Your task to perform on an android device: turn off data saver in the chrome app Image 0: 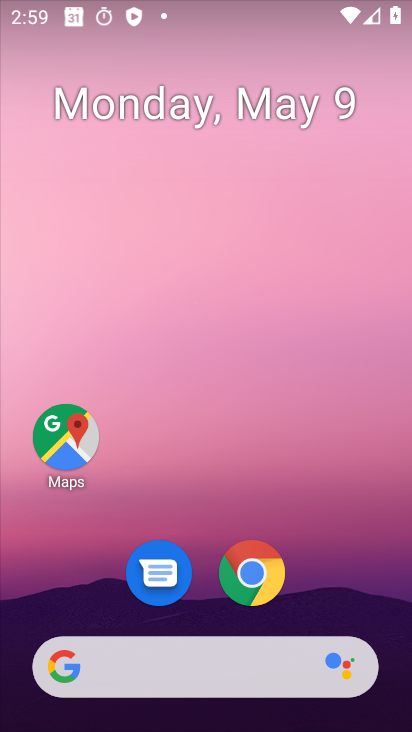
Step 0: drag from (292, 660) to (165, 197)
Your task to perform on an android device: turn off data saver in the chrome app Image 1: 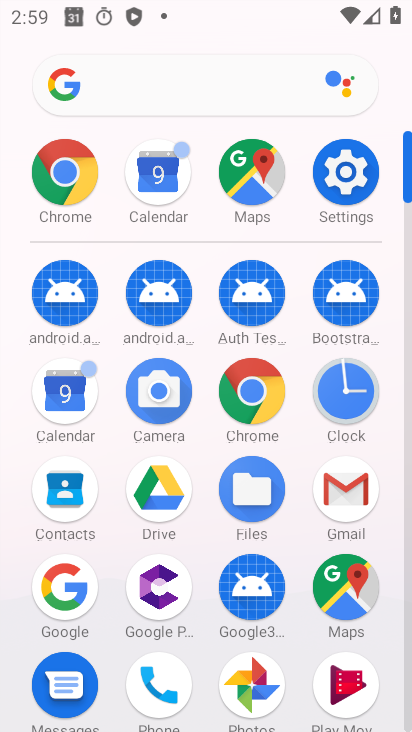
Step 1: click (70, 195)
Your task to perform on an android device: turn off data saver in the chrome app Image 2: 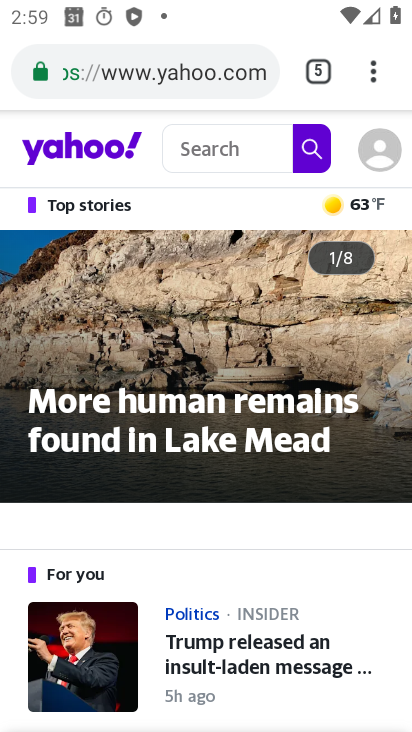
Step 2: drag from (363, 79) to (115, 564)
Your task to perform on an android device: turn off data saver in the chrome app Image 3: 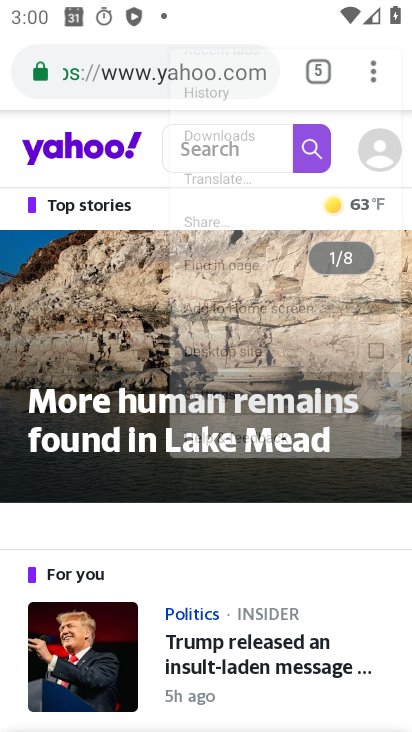
Step 3: click (117, 560)
Your task to perform on an android device: turn off data saver in the chrome app Image 4: 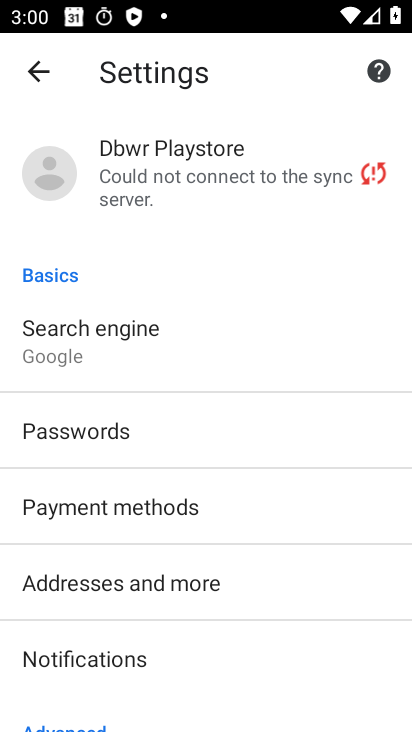
Step 4: drag from (138, 571) to (84, 263)
Your task to perform on an android device: turn off data saver in the chrome app Image 5: 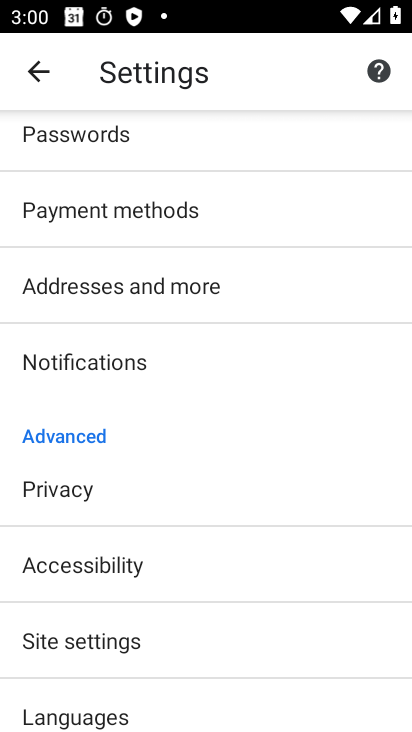
Step 5: click (72, 635)
Your task to perform on an android device: turn off data saver in the chrome app Image 6: 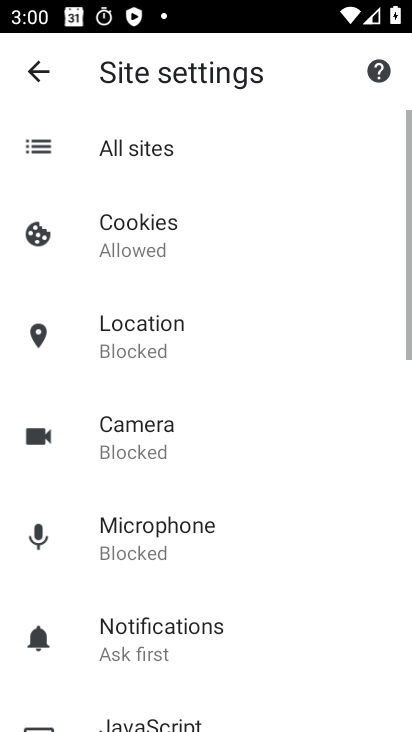
Step 6: click (31, 77)
Your task to perform on an android device: turn off data saver in the chrome app Image 7: 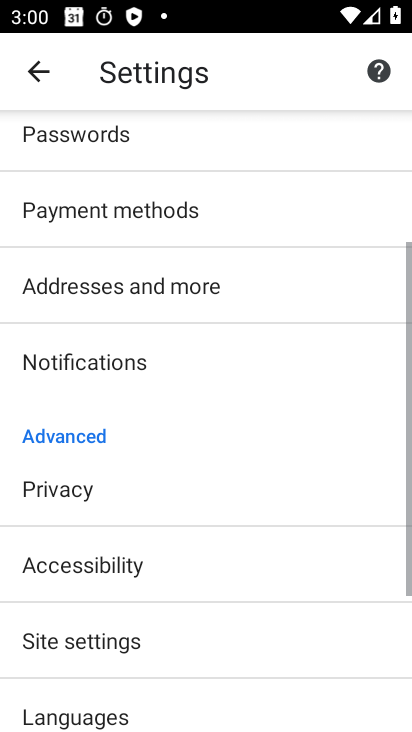
Step 7: drag from (63, 647) to (76, 280)
Your task to perform on an android device: turn off data saver in the chrome app Image 8: 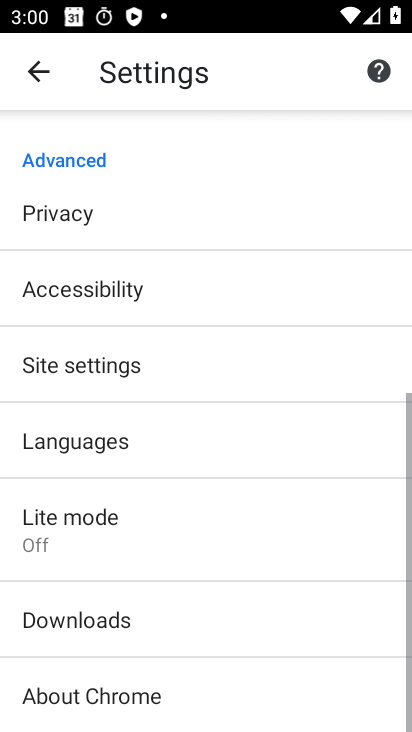
Step 8: click (72, 519)
Your task to perform on an android device: turn off data saver in the chrome app Image 9: 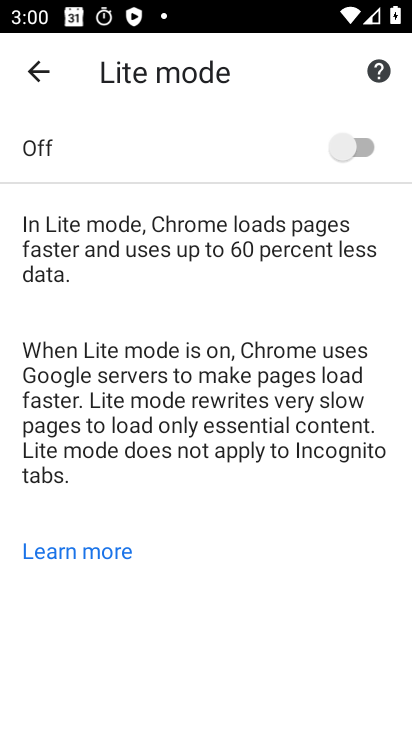
Step 9: task complete